Your task to perform on an android device: Open Yahoo.com Image 0: 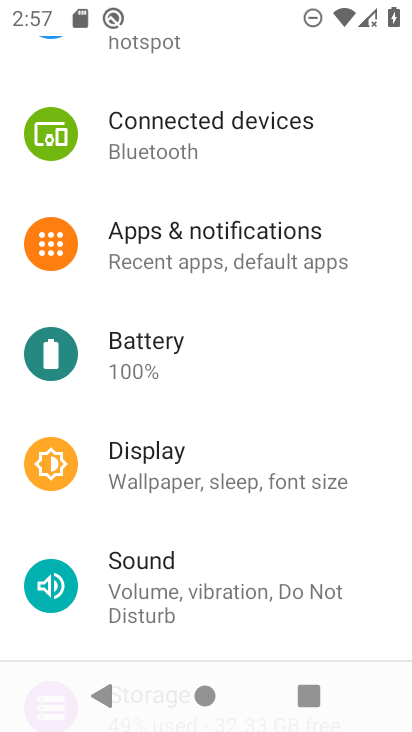
Step 0: press home button
Your task to perform on an android device: Open Yahoo.com Image 1: 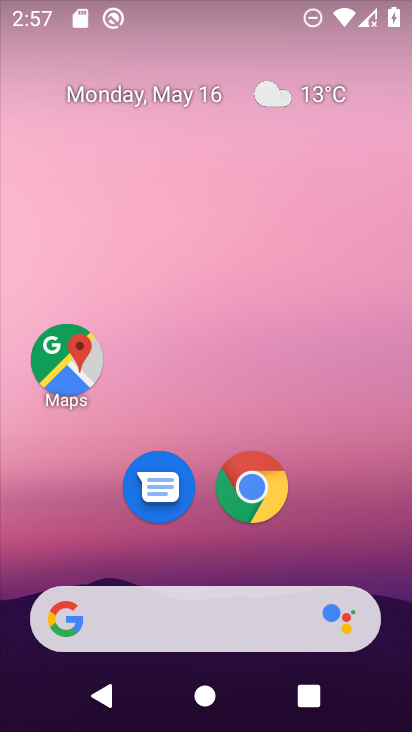
Step 1: click (258, 474)
Your task to perform on an android device: Open Yahoo.com Image 2: 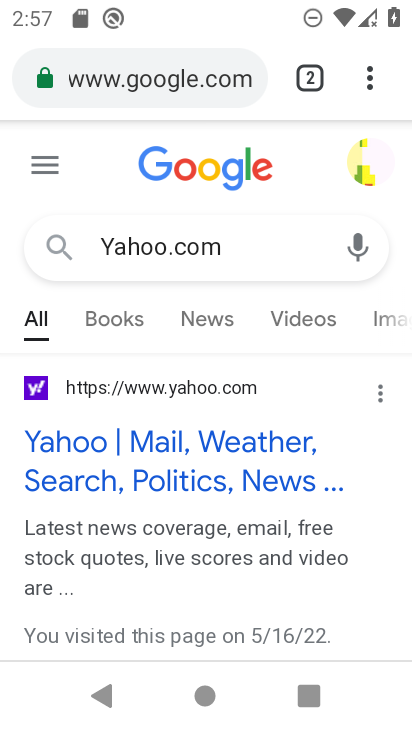
Step 2: task complete